Your task to perform on an android device: What is the capital of France? Image 0: 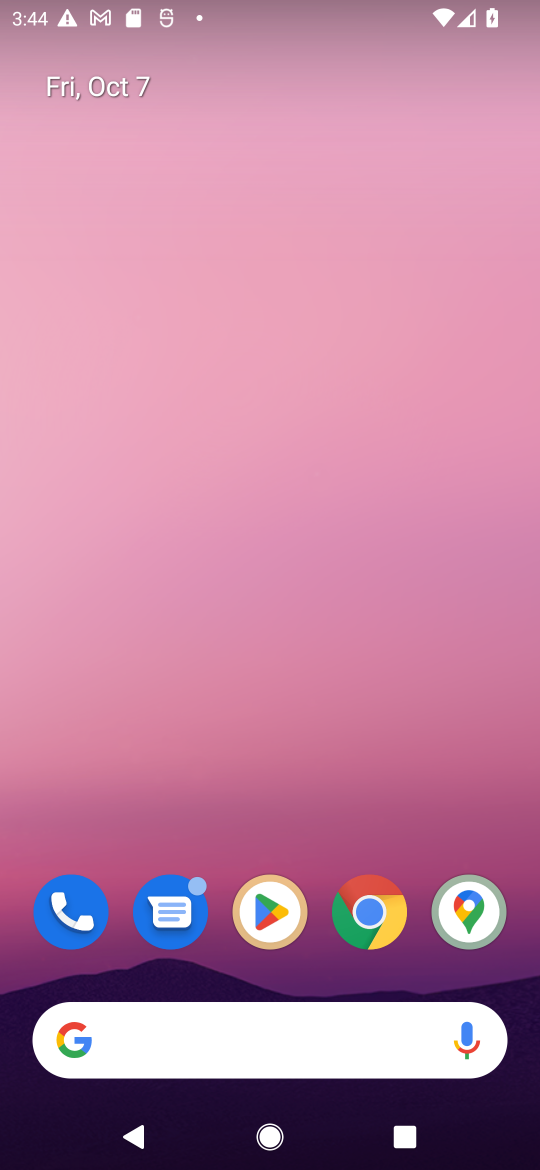
Step 0: drag from (239, 975) to (237, 285)
Your task to perform on an android device: What is the capital of France? Image 1: 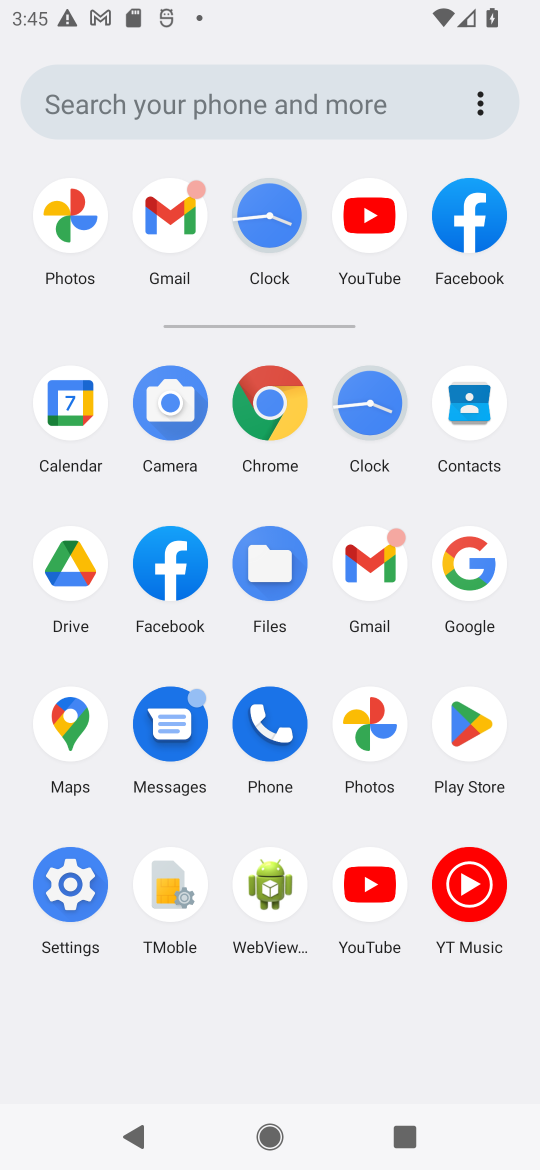
Step 1: click (467, 548)
Your task to perform on an android device: What is the capital of France? Image 2: 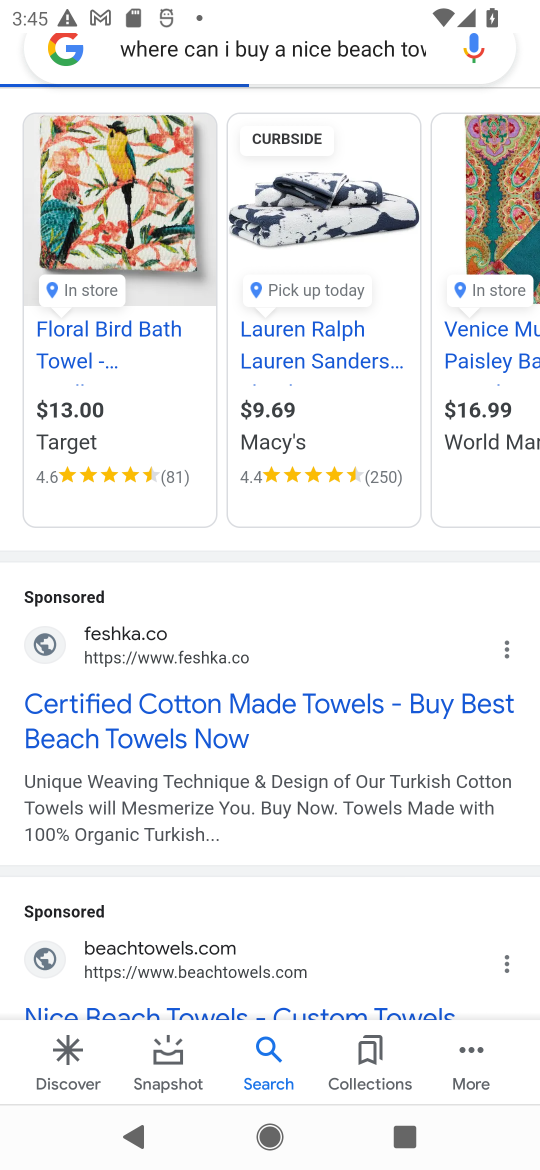
Step 2: click (283, 64)
Your task to perform on an android device: What is the capital of France? Image 3: 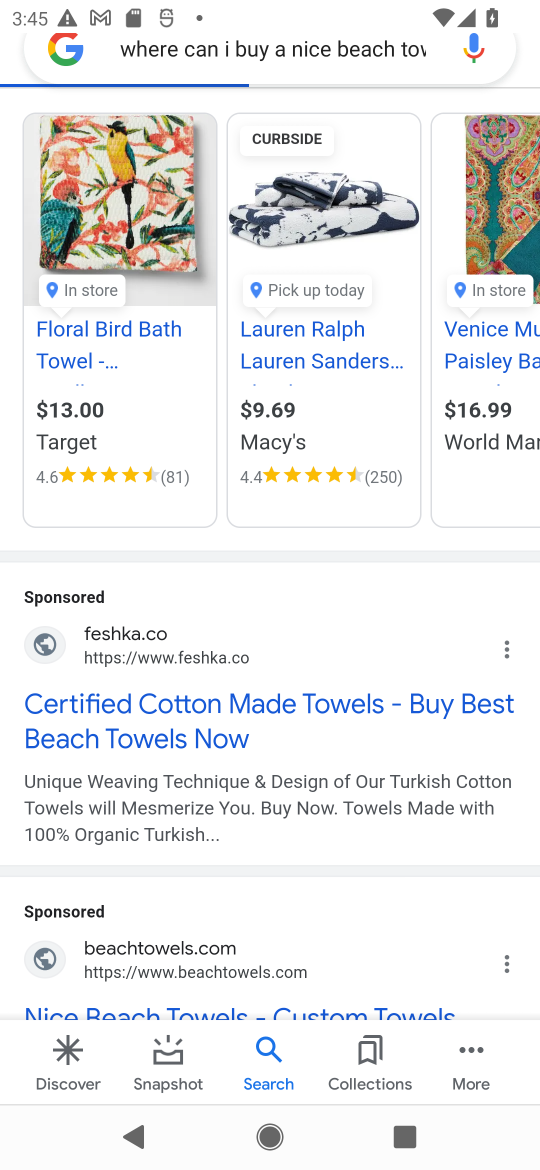
Step 3: click (289, 42)
Your task to perform on an android device: What is the capital of France? Image 4: 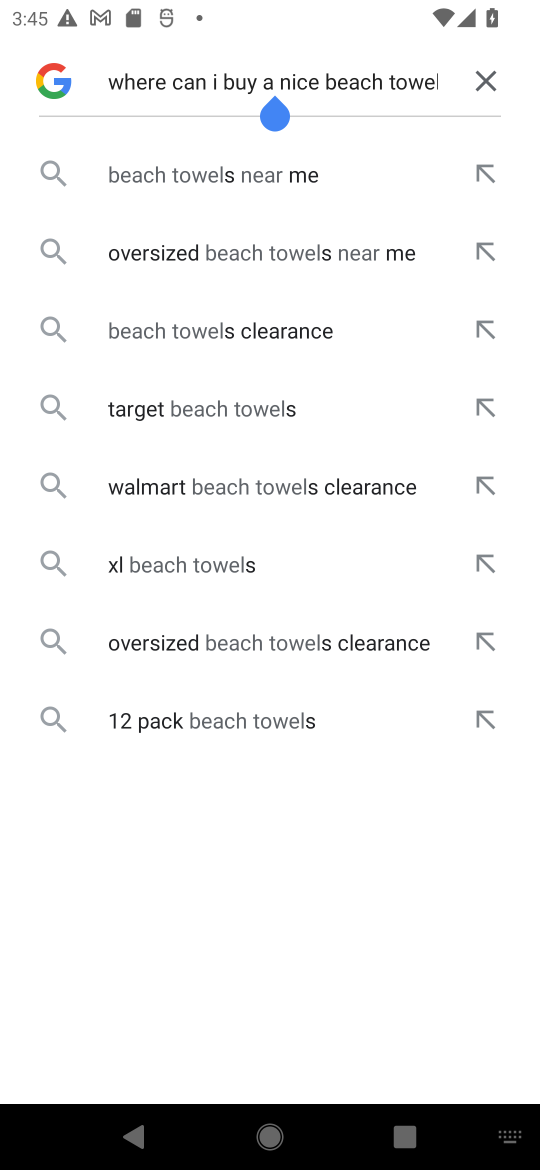
Step 4: click (481, 81)
Your task to perform on an android device: What is the capital of France? Image 5: 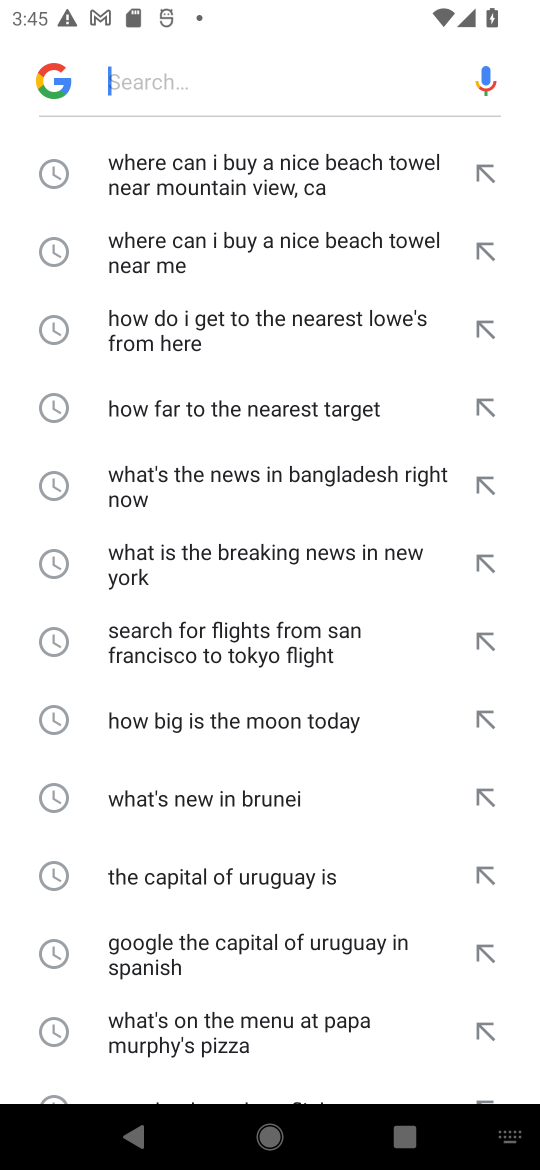
Step 5: click (274, 79)
Your task to perform on an android device: What is the capital of France? Image 6: 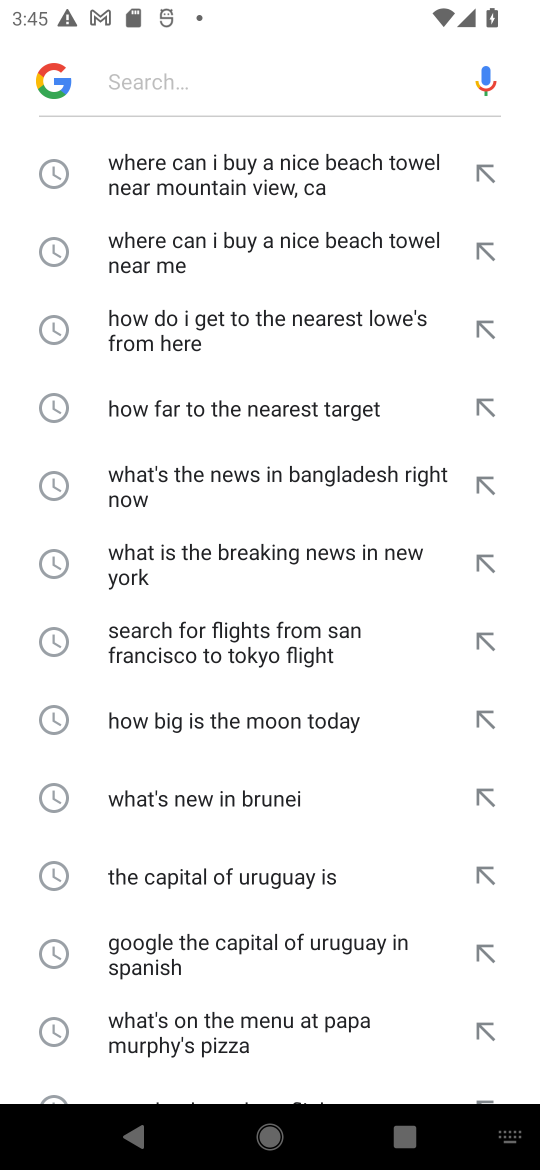
Step 6: type "What is the capital of France? "
Your task to perform on an android device: What is the capital of France? Image 7: 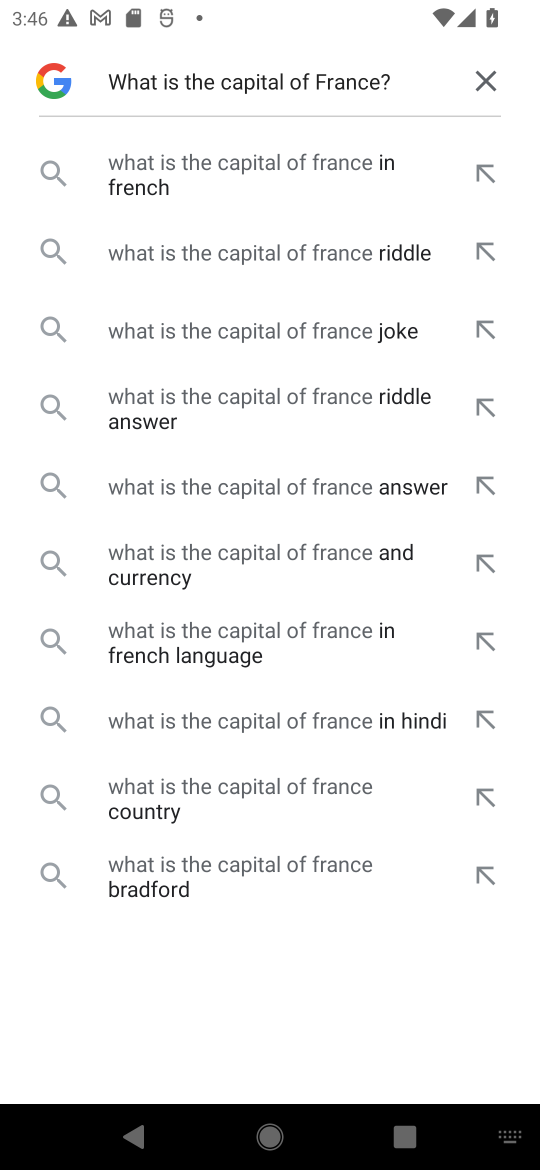
Step 7: click (285, 185)
Your task to perform on an android device: What is the capital of France? Image 8: 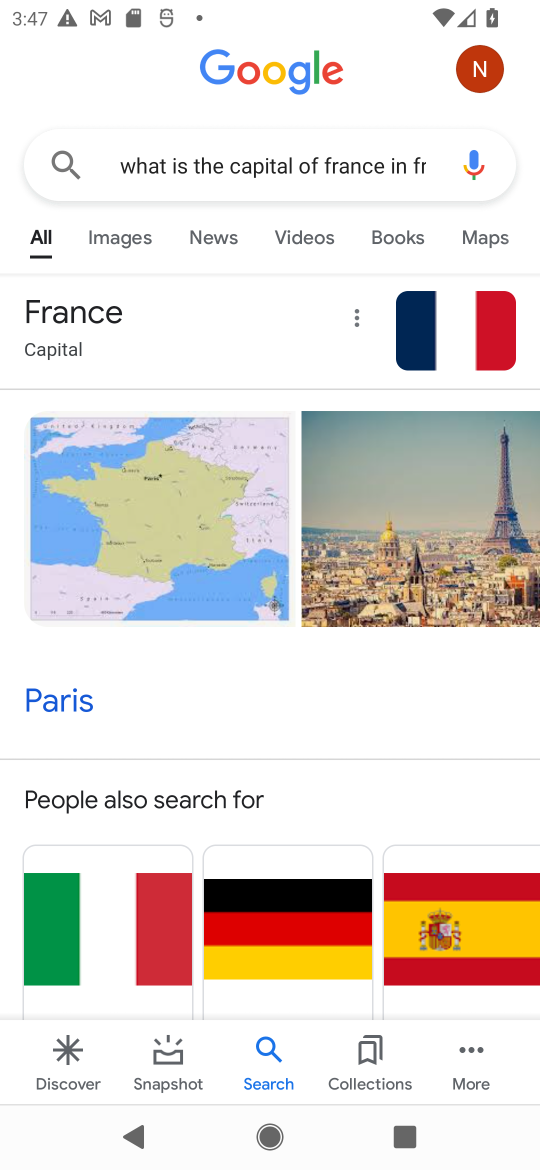
Step 8: task complete